Your task to perform on an android device: search for starred emails in the gmail app Image 0: 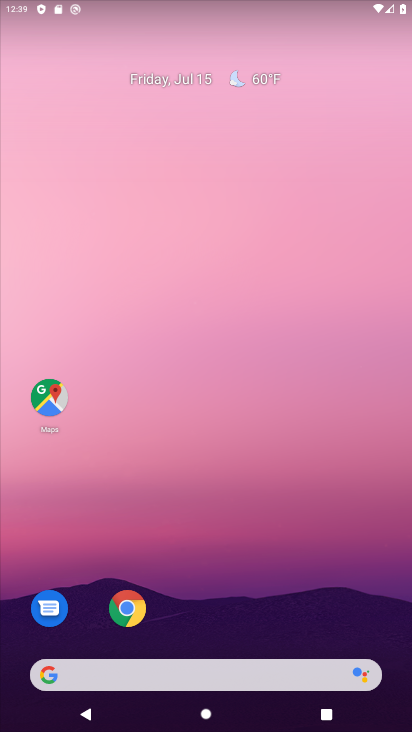
Step 0: drag from (222, 618) to (264, 4)
Your task to perform on an android device: search for starred emails in the gmail app Image 1: 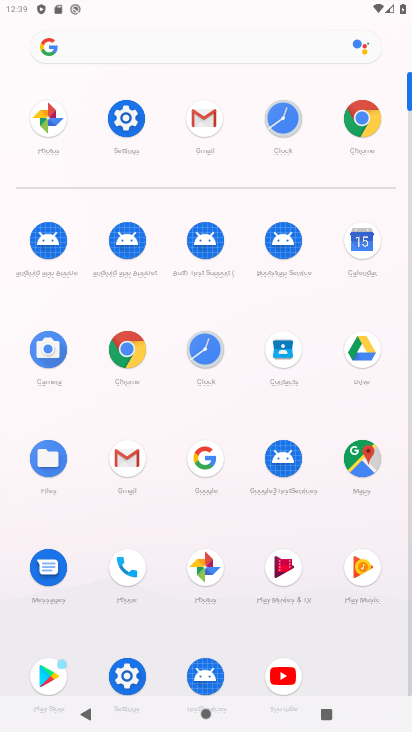
Step 1: click (131, 446)
Your task to perform on an android device: search for starred emails in the gmail app Image 2: 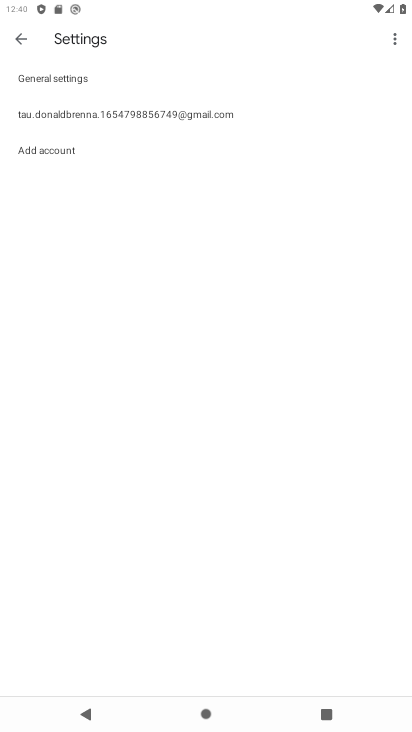
Step 2: click (19, 40)
Your task to perform on an android device: search for starred emails in the gmail app Image 3: 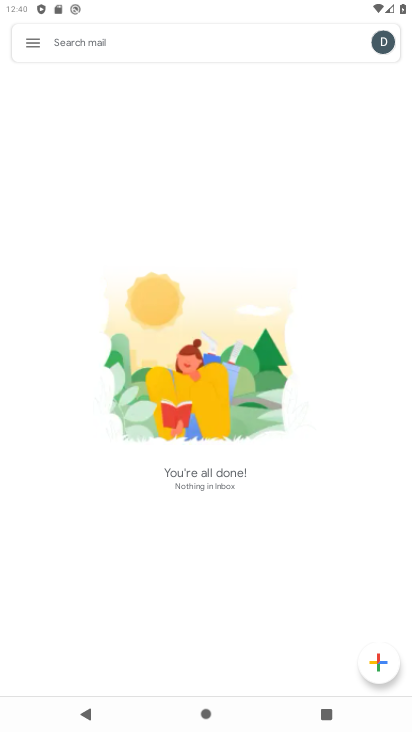
Step 3: click (19, 40)
Your task to perform on an android device: search for starred emails in the gmail app Image 4: 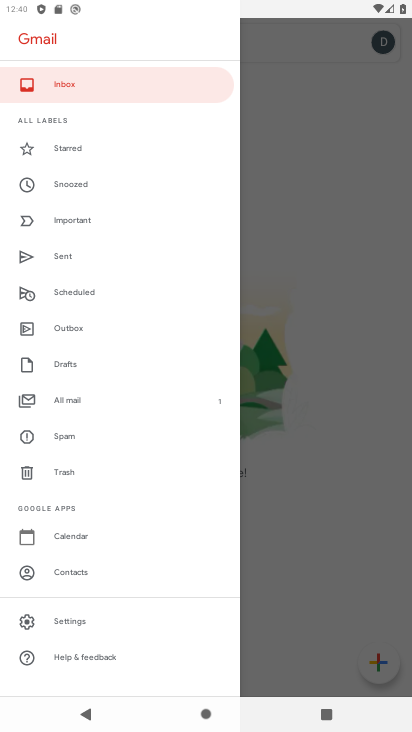
Step 4: click (75, 609)
Your task to perform on an android device: search for starred emails in the gmail app Image 5: 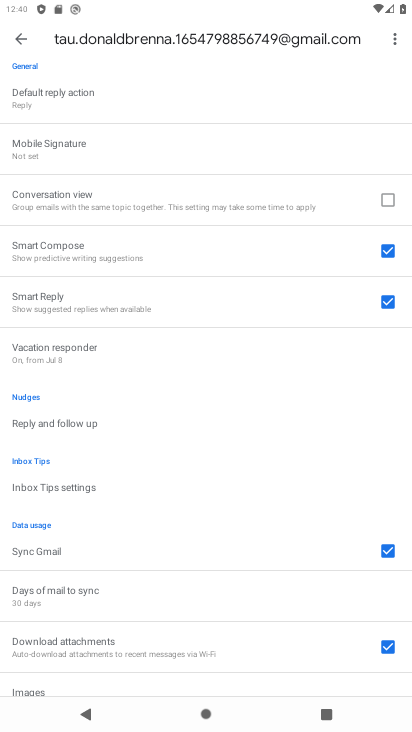
Step 5: click (21, 46)
Your task to perform on an android device: search for starred emails in the gmail app Image 6: 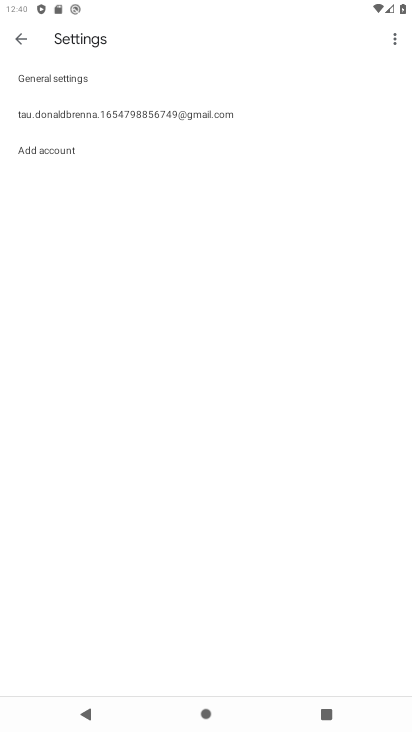
Step 6: click (21, 46)
Your task to perform on an android device: search for starred emails in the gmail app Image 7: 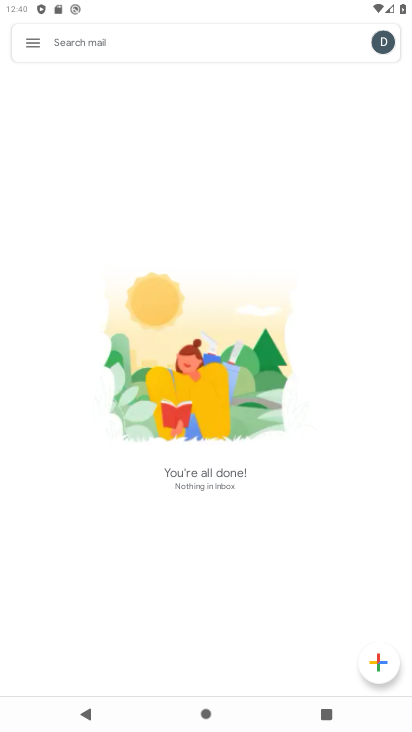
Step 7: click (25, 30)
Your task to perform on an android device: search for starred emails in the gmail app Image 8: 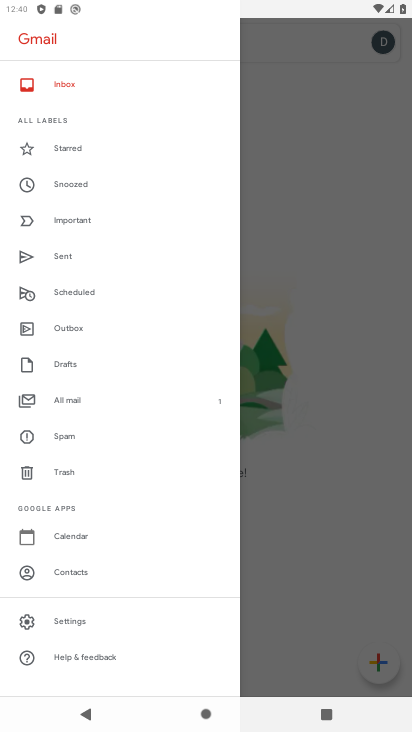
Step 8: click (72, 147)
Your task to perform on an android device: search for starred emails in the gmail app Image 9: 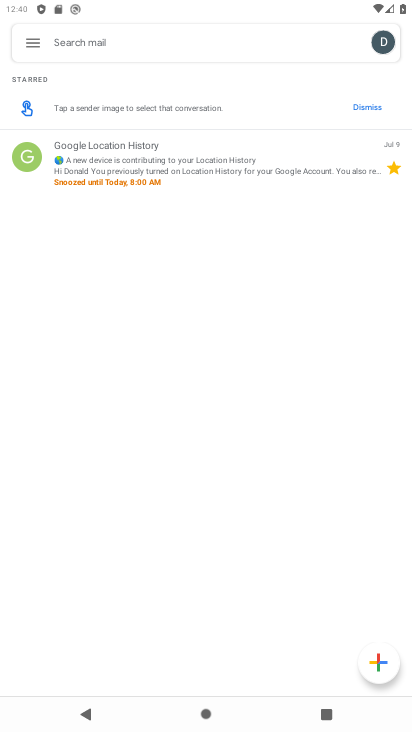
Step 9: task complete